Your task to perform on an android device: What's the weather going to be this weekend? Image 0: 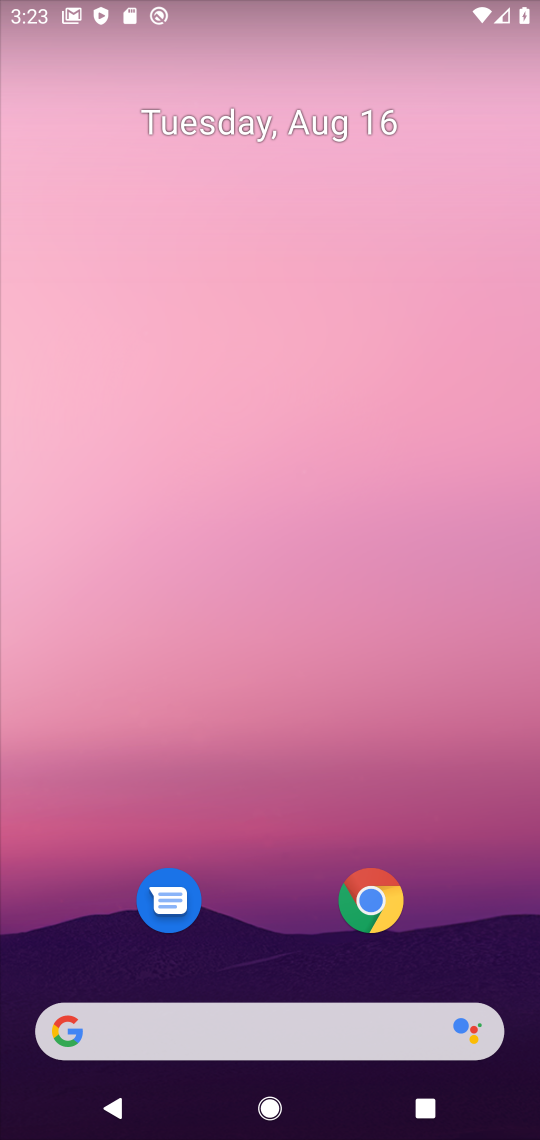
Step 0: drag from (258, 767) to (231, 101)
Your task to perform on an android device: What's the weather going to be this weekend? Image 1: 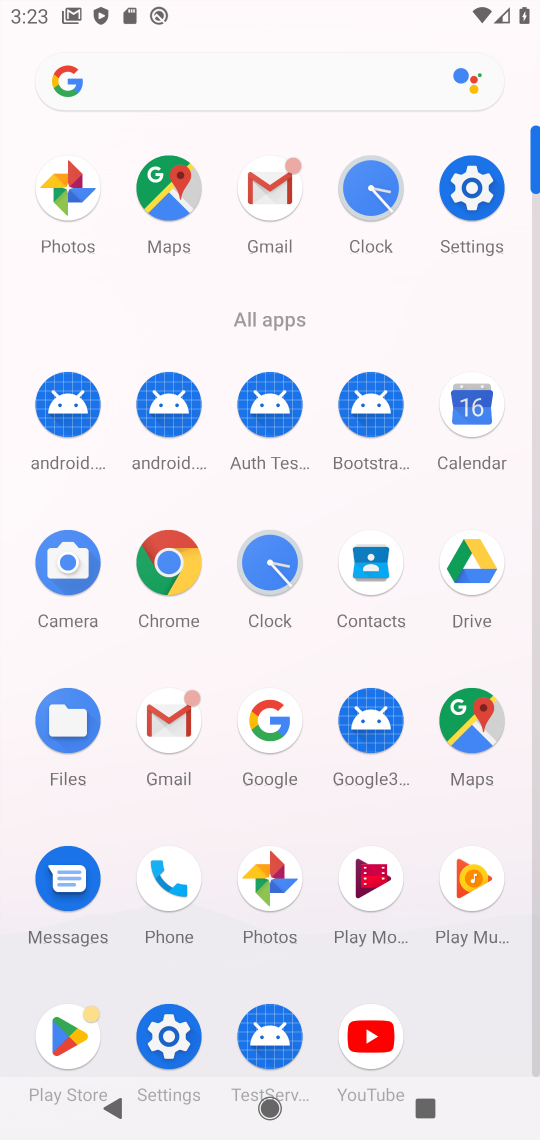
Step 1: click (271, 720)
Your task to perform on an android device: What's the weather going to be this weekend? Image 2: 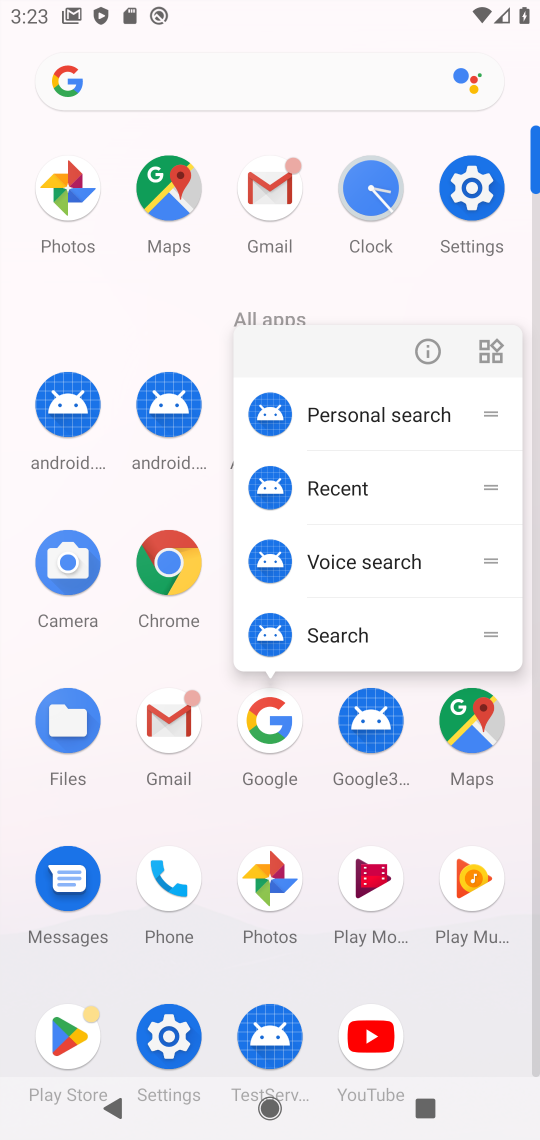
Step 2: click (278, 728)
Your task to perform on an android device: What's the weather going to be this weekend? Image 3: 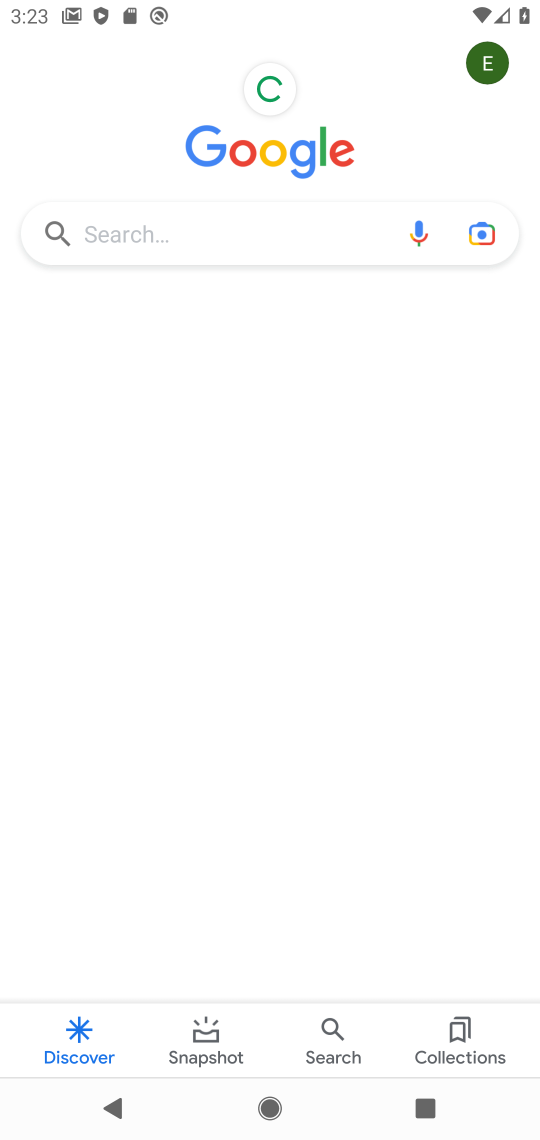
Step 3: click (283, 241)
Your task to perform on an android device: What's the weather going to be this weekend? Image 4: 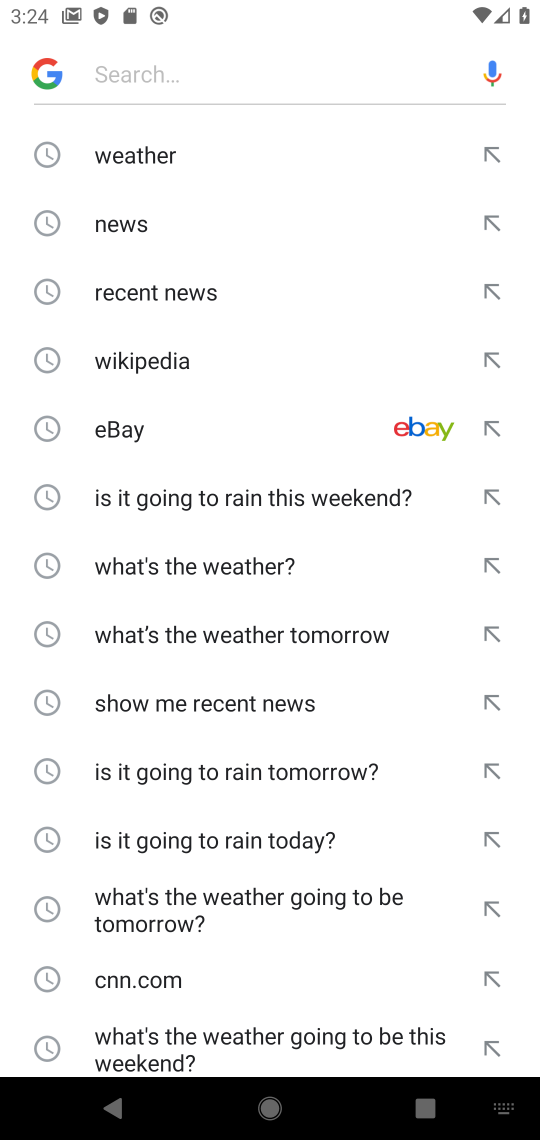
Step 4: click (130, 160)
Your task to perform on an android device: What's the weather going to be this weekend? Image 5: 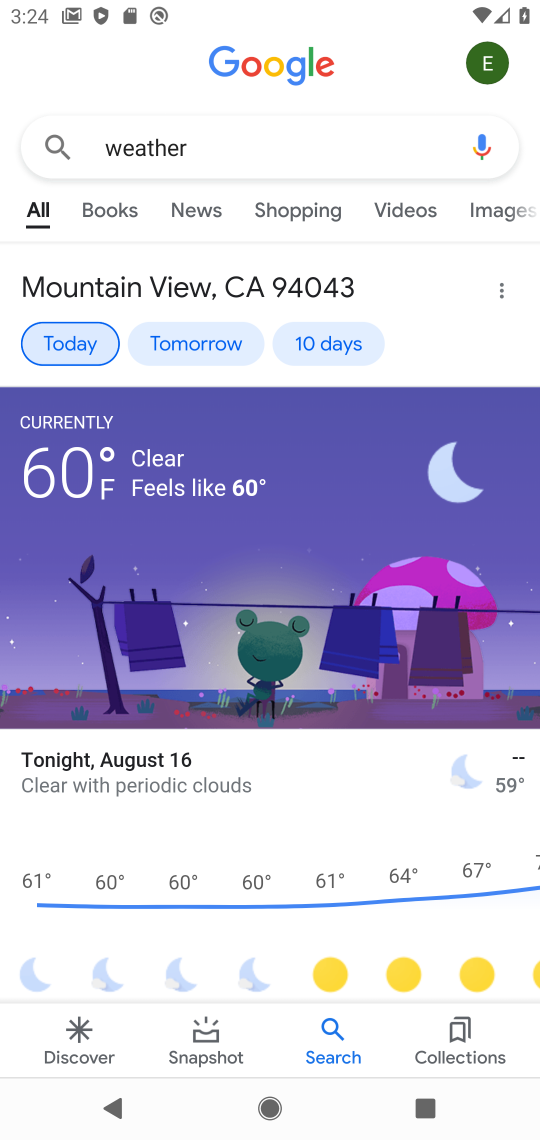
Step 5: click (313, 336)
Your task to perform on an android device: What's the weather going to be this weekend? Image 6: 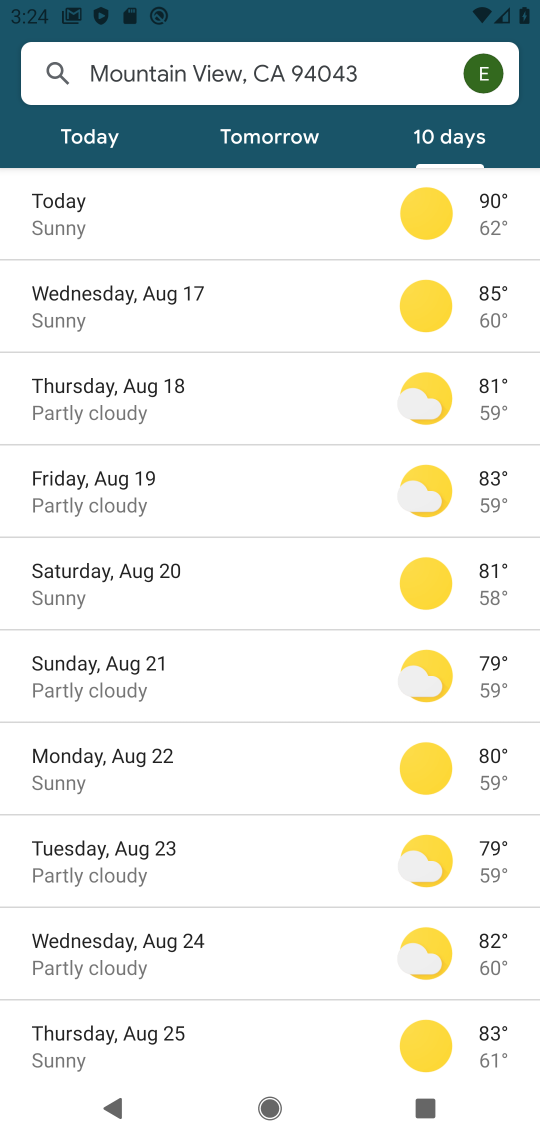
Step 6: click (138, 579)
Your task to perform on an android device: What's the weather going to be this weekend? Image 7: 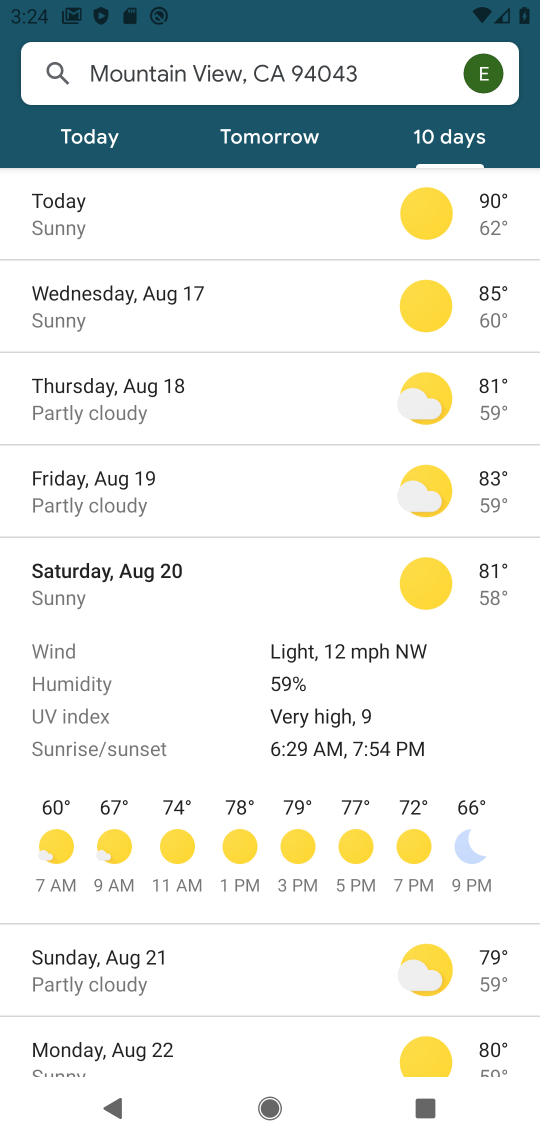
Step 7: task complete